Your task to perform on an android device: Go to accessibility settings Image 0: 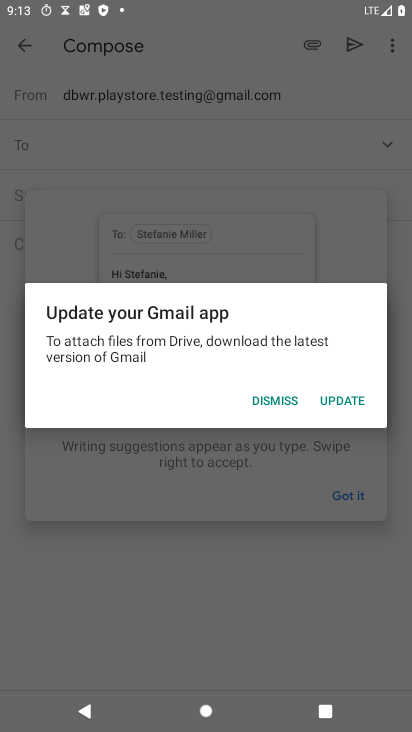
Step 0: press back button
Your task to perform on an android device: Go to accessibility settings Image 1: 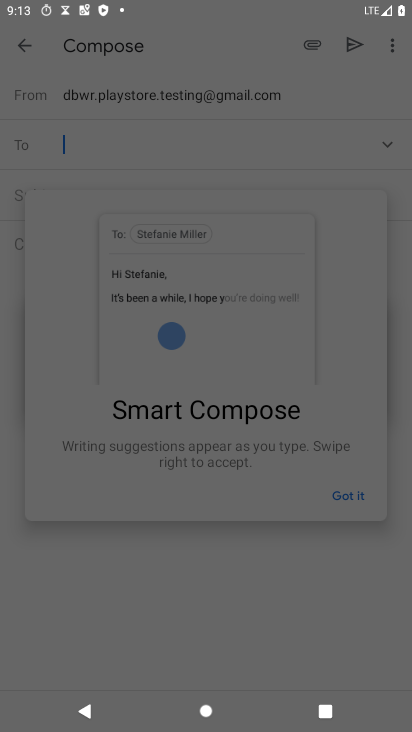
Step 1: press back button
Your task to perform on an android device: Go to accessibility settings Image 2: 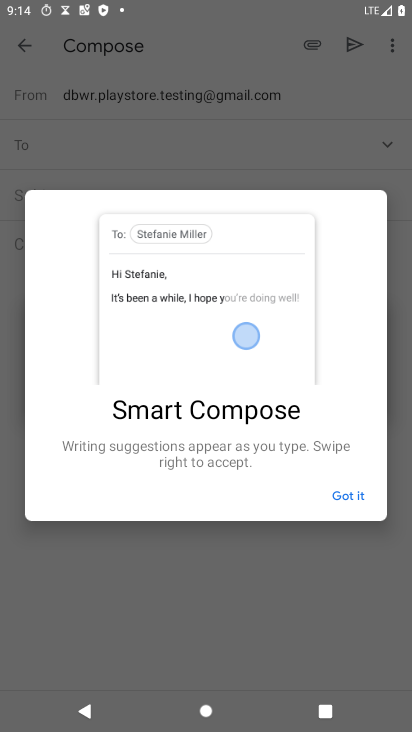
Step 2: press home button
Your task to perform on an android device: Go to accessibility settings Image 3: 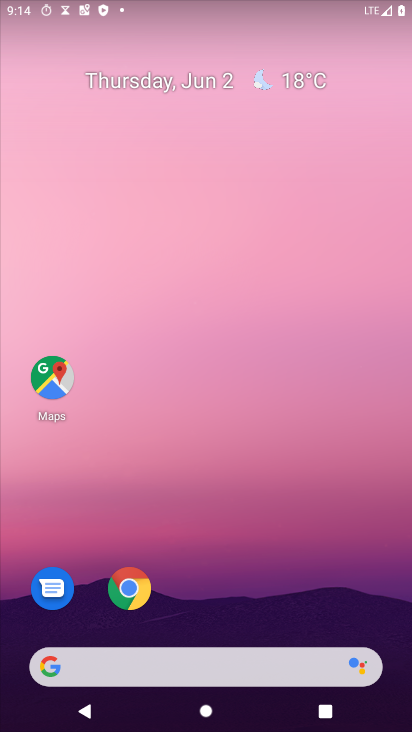
Step 3: drag from (226, 574) to (323, 36)
Your task to perform on an android device: Go to accessibility settings Image 4: 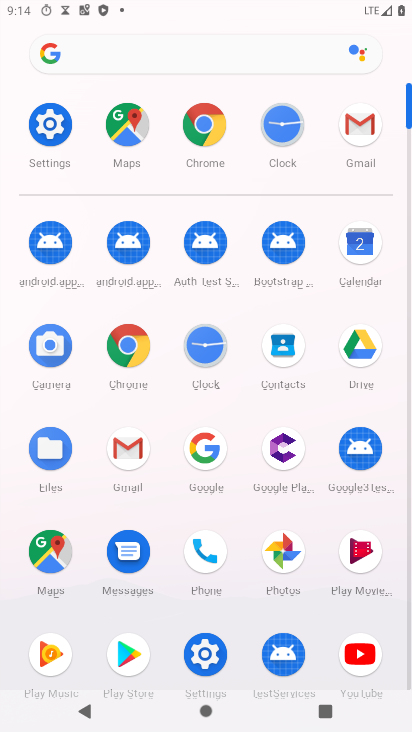
Step 4: click (46, 121)
Your task to perform on an android device: Go to accessibility settings Image 5: 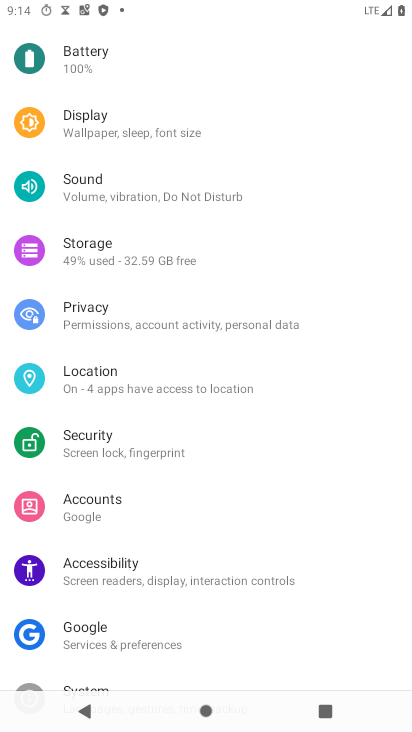
Step 5: click (113, 563)
Your task to perform on an android device: Go to accessibility settings Image 6: 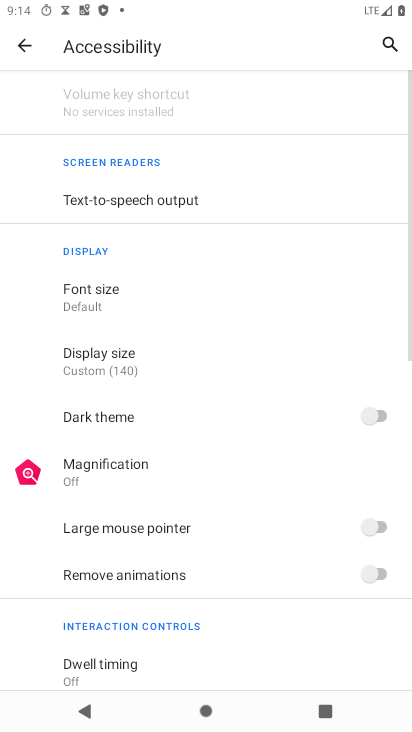
Step 6: task complete